Your task to perform on an android device: turn off location Image 0: 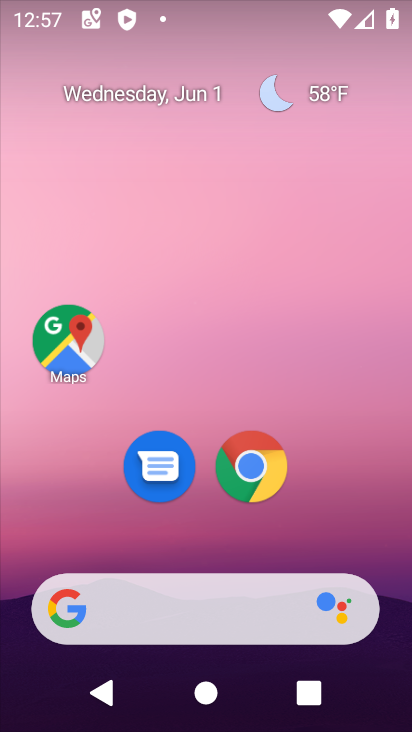
Step 0: drag from (397, 555) to (294, 160)
Your task to perform on an android device: turn off location Image 1: 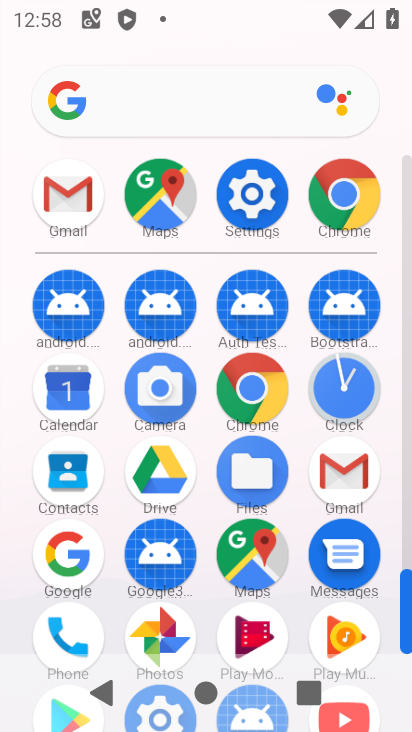
Step 1: click (270, 199)
Your task to perform on an android device: turn off location Image 2: 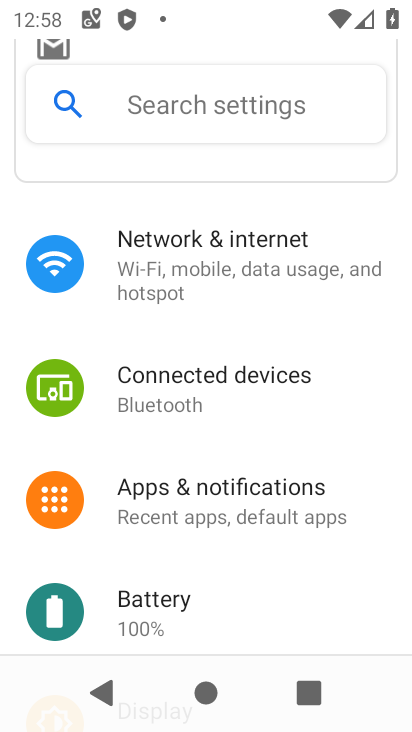
Step 2: drag from (311, 572) to (263, 233)
Your task to perform on an android device: turn off location Image 3: 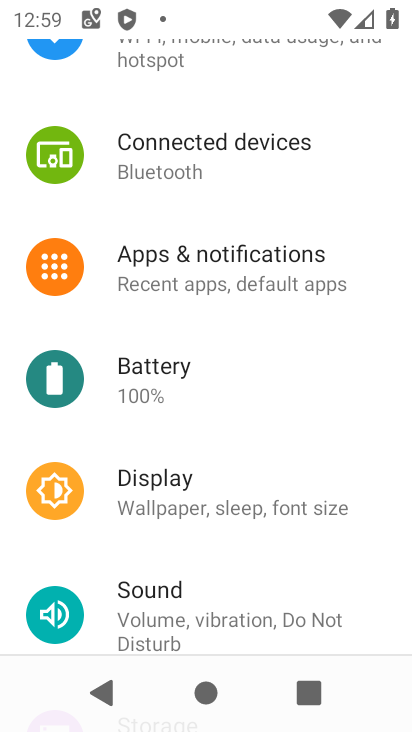
Step 3: drag from (296, 582) to (256, 295)
Your task to perform on an android device: turn off location Image 4: 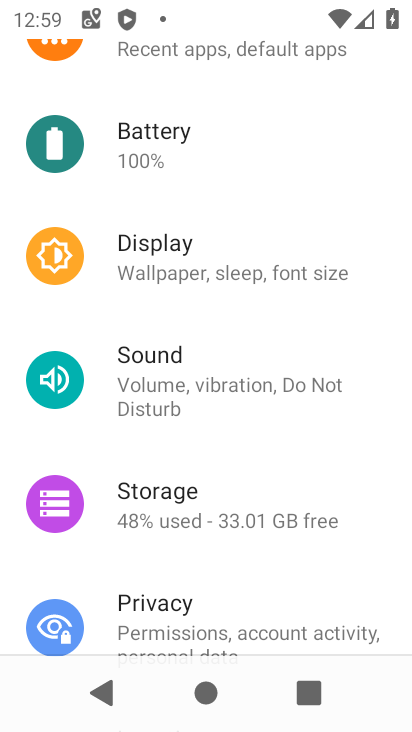
Step 4: drag from (240, 582) to (235, 281)
Your task to perform on an android device: turn off location Image 5: 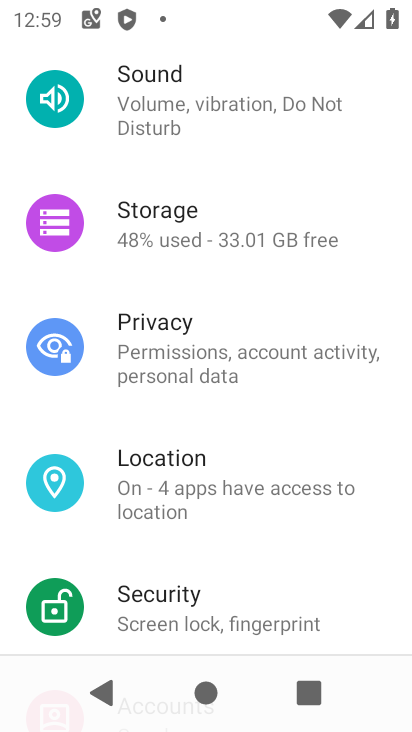
Step 5: click (241, 484)
Your task to perform on an android device: turn off location Image 6: 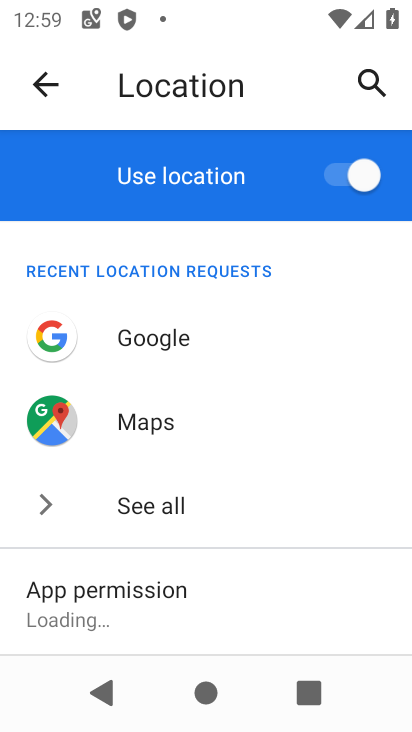
Step 6: click (355, 170)
Your task to perform on an android device: turn off location Image 7: 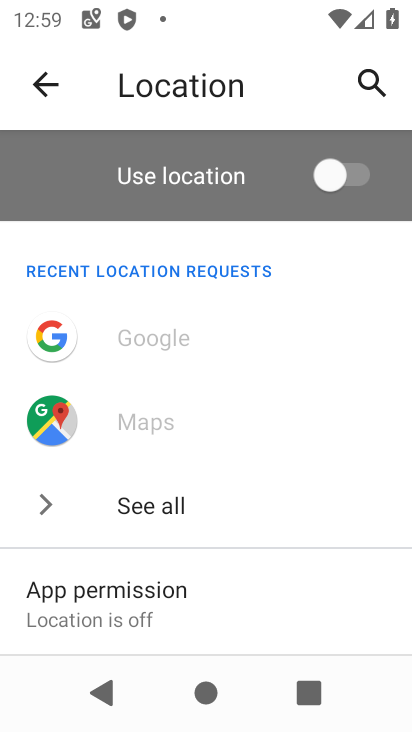
Step 7: task complete